Your task to perform on an android device: Go to display settings Image 0: 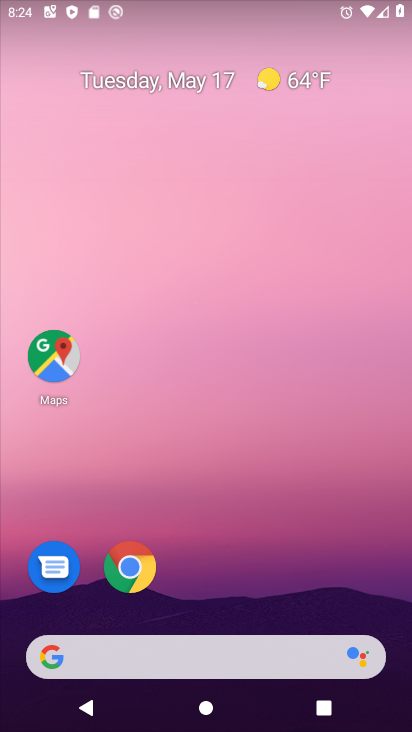
Step 0: drag from (357, 613) to (187, 168)
Your task to perform on an android device: Go to display settings Image 1: 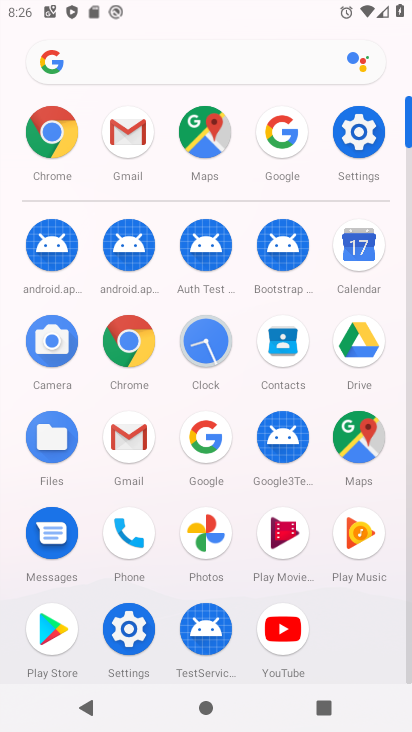
Step 1: click (367, 121)
Your task to perform on an android device: Go to display settings Image 2: 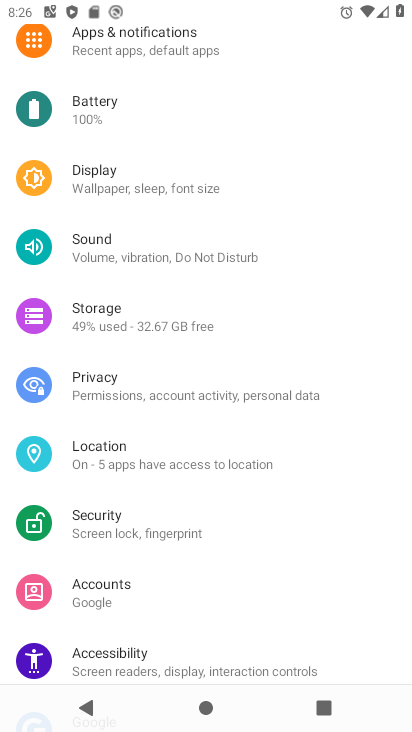
Step 2: click (161, 171)
Your task to perform on an android device: Go to display settings Image 3: 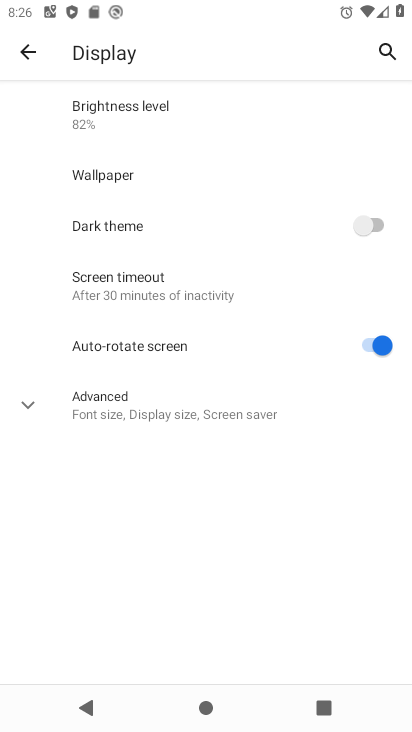
Step 3: task complete